Your task to perform on an android device: turn on airplane mode Image 0: 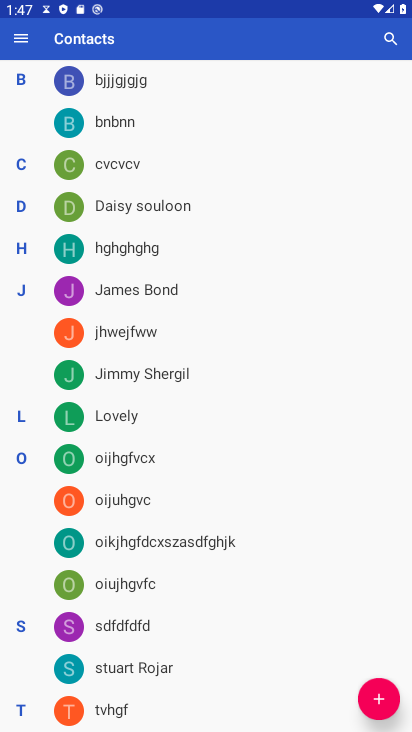
Step 0: press back button
Your task to perform on an android device: turn on airplane mode Image 1: 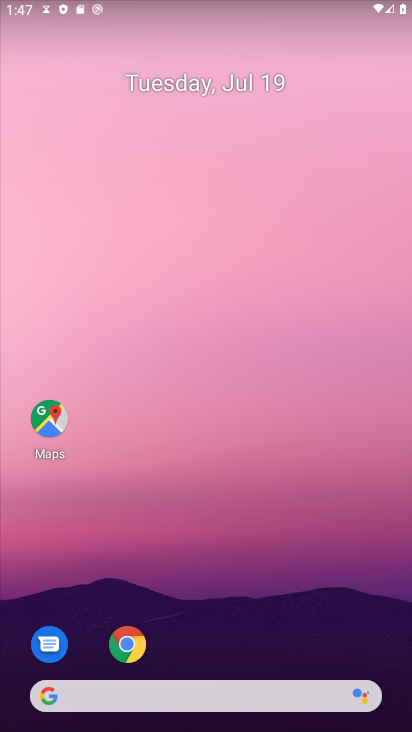
Step 1: drag from (209, 669) to (204, 404)
Your task to perform on an android device: turn on airplane mode Image 2: 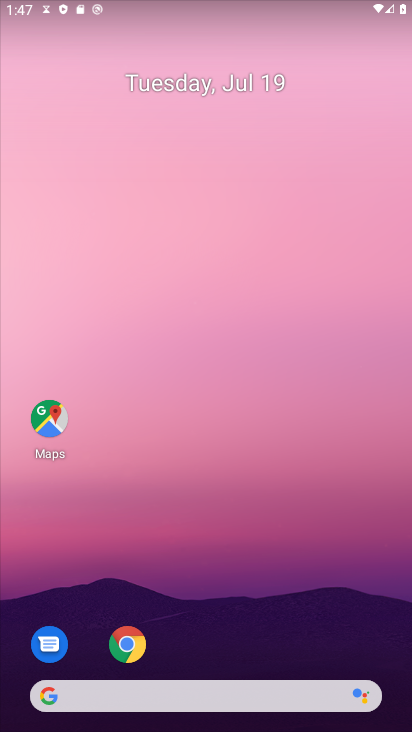
Step 2: drag from (238, 659) to (221, 208)
Your task to perform on an android device: turn on airplane mode Image 3: 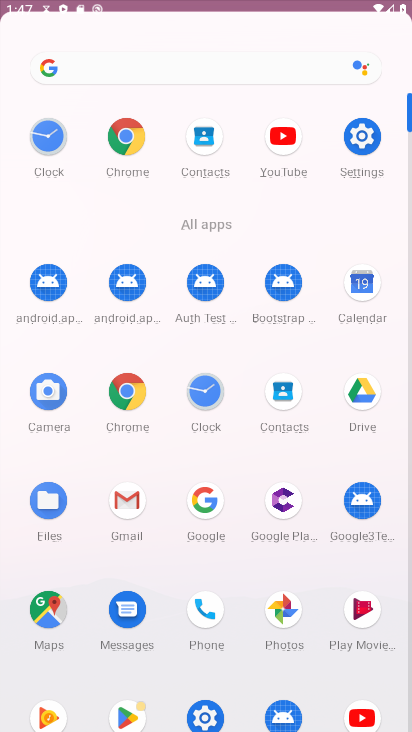
Step 3: drag from (185, 552) to (172, 11)
Your task to perform on an android device: turn on airplane mode Image 4: 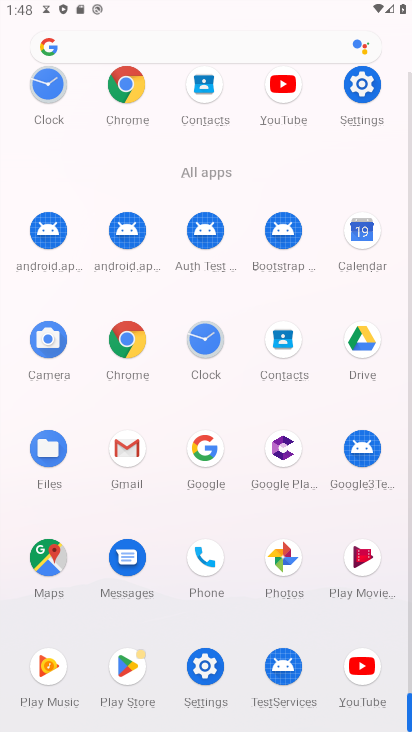
Step 4: click (365, 94)
Your task to perform on an android device: turn on airplane mode Image 5: 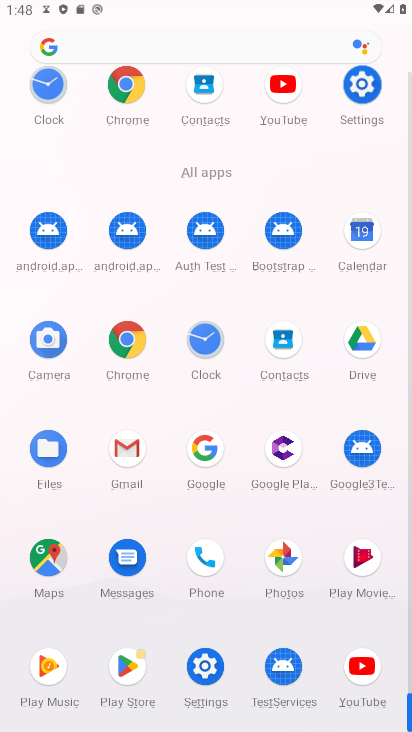
Step 5: click (365, 93)
Your task to perform on an android device: turn on airplane mode Image 6: 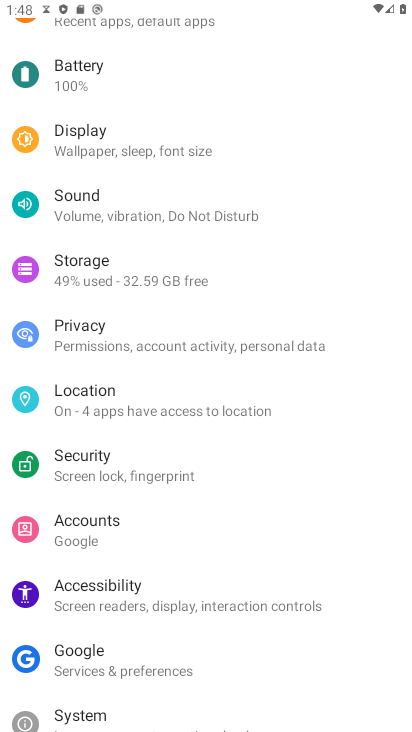
Step 6: drag from (90, 86) to (57, 625)
Your task to perform on an android device: turn on airplane mode Image 7: 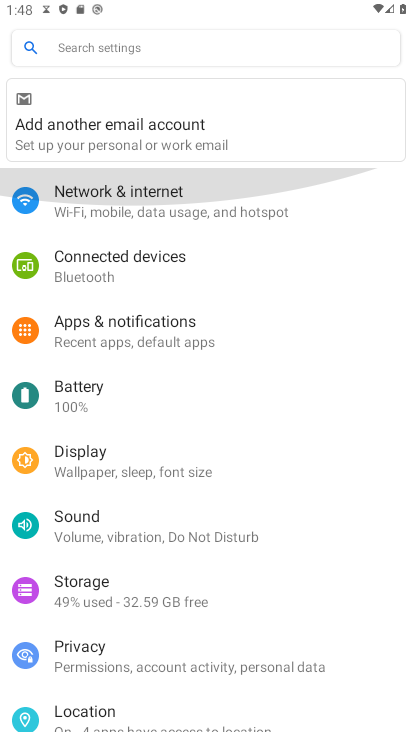
Step 7: drag from (58, 239) to (140, 641)
Your task to perform on an android device: turn on airplane mode Image 8: 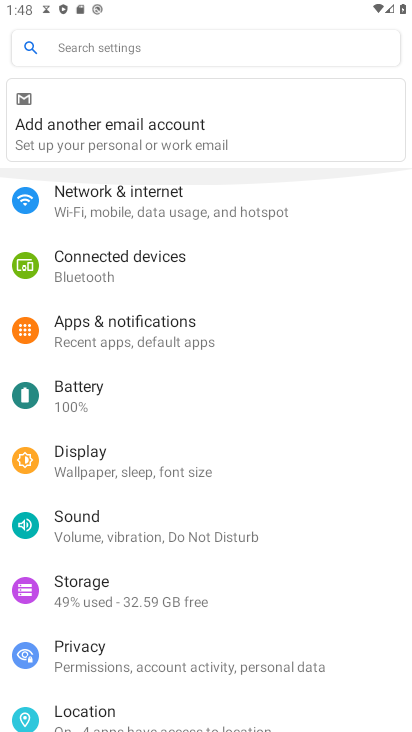
Step 8: drag from (111, 260) to (157, 567)
Your task to perform on an android device: turn on airplane mode Image 9: 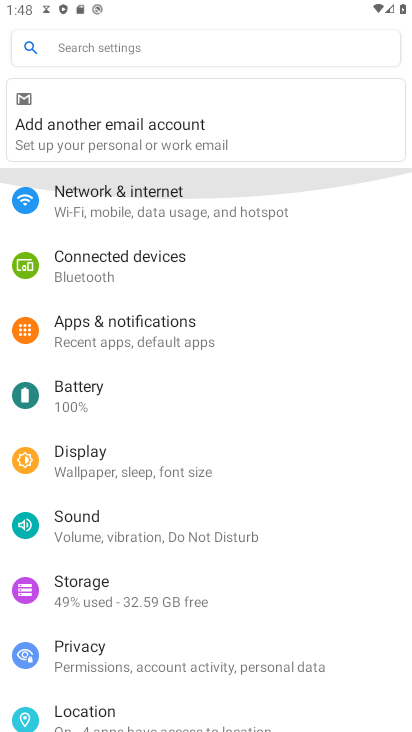
Step 9: click (143, 212)
Your task to perform on an android device: turn on airplane mode Image 10: 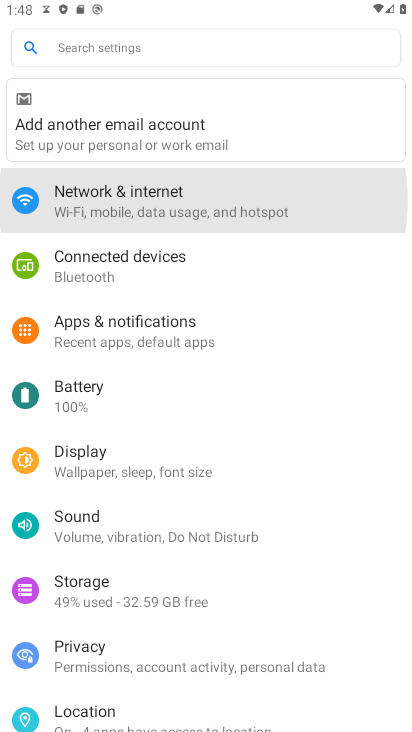
Step 10: click (143, 212)
Your task to perform on an android device: turn on airplane mode Image 11: 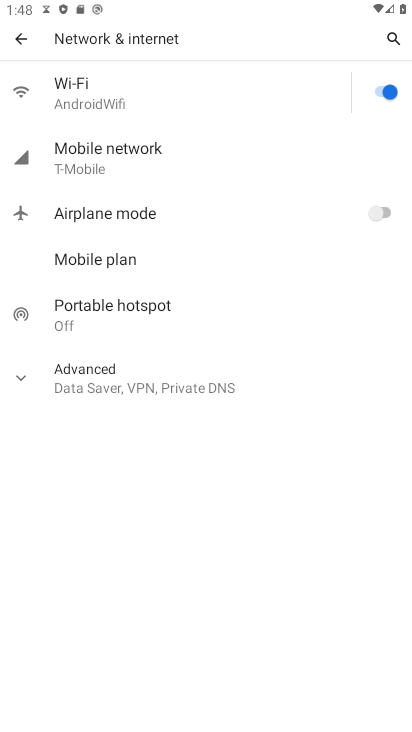
Step 11: click (143, 212)
Your task to perform on an android device: turn on airplane mode Image 12: 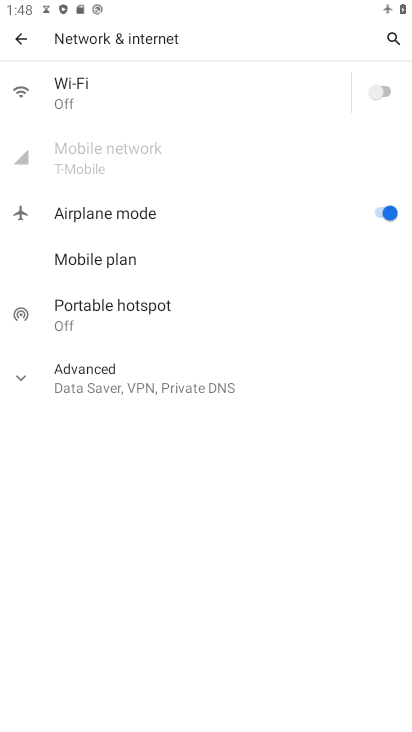
Step 12: click (375, 89)
Your task to perform on an android device: turn on airplane mode Image 13: 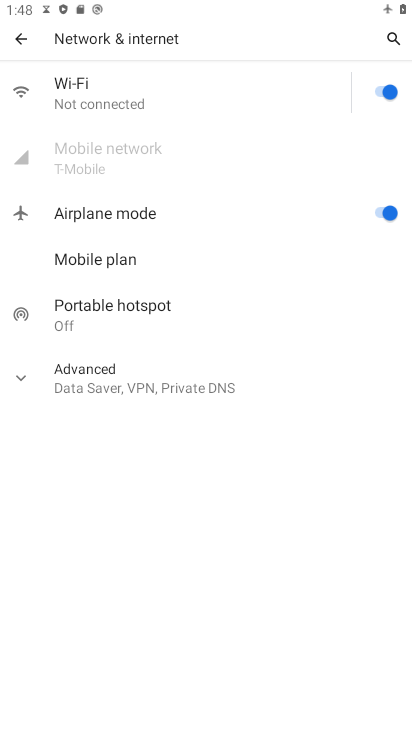
Step 13: task complete